Your task to perform on an android device: Go to calendar. Show me events next week Image 0: 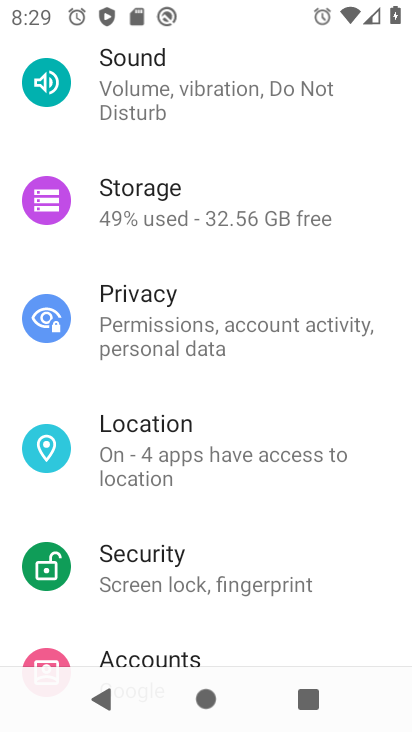
Step 0: press home button
Your task to perform on an android device: Go to calendar. Show me events next week Image 1: 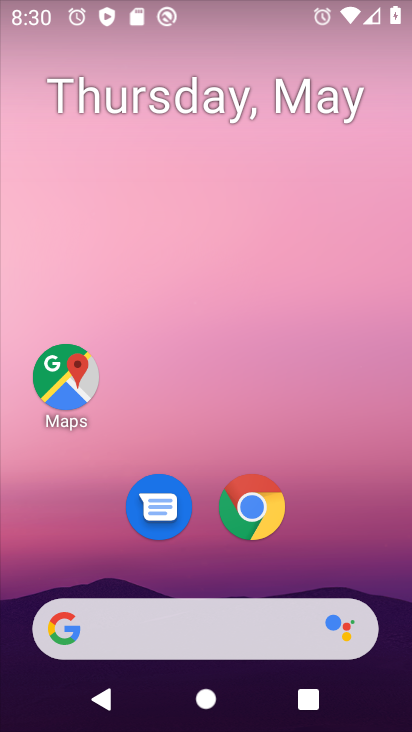
Step 1: drag from (193, 573) to (225, 19)
Your task to perform on an android device: Go to calendar. Show me events next week Image 2: 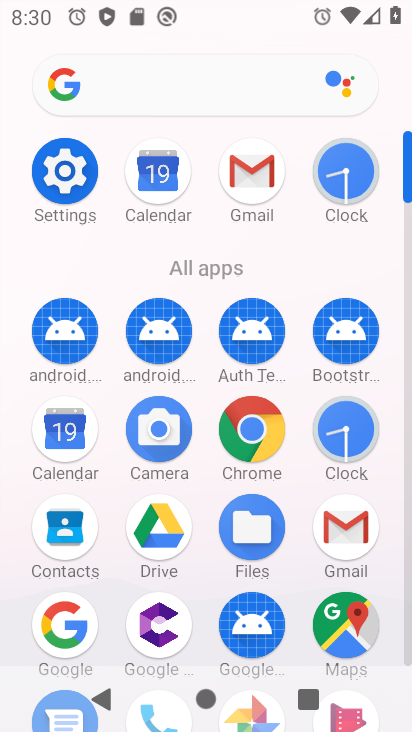
Step 2: click (61, 438)
Your task to perform on an android device: Go to calendar. Show me events next week Image 3: 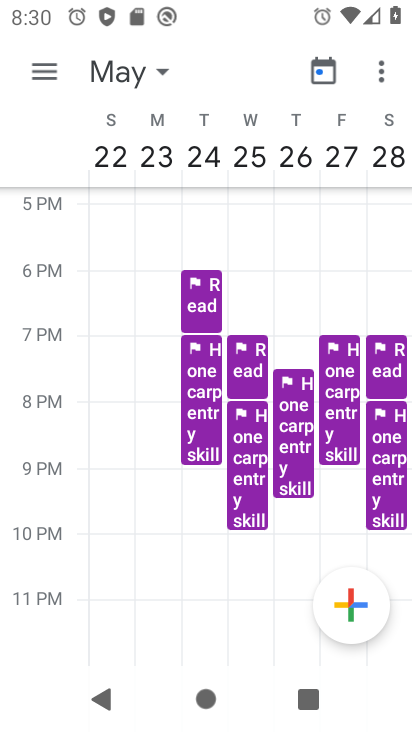
Step 3: task complete